Your task to perform on an android device: Search for vegetarian restaurants on Maps Image 0: 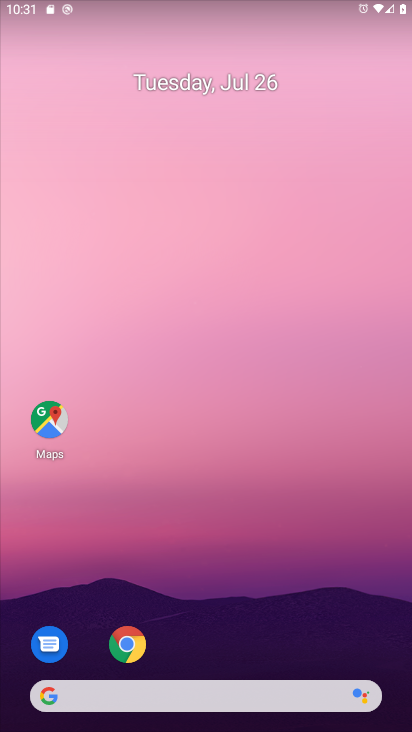
Step 0: click (54, 407)
Your task to perform on an android device: Search for vegetarian restaurants on Maps Image 1: 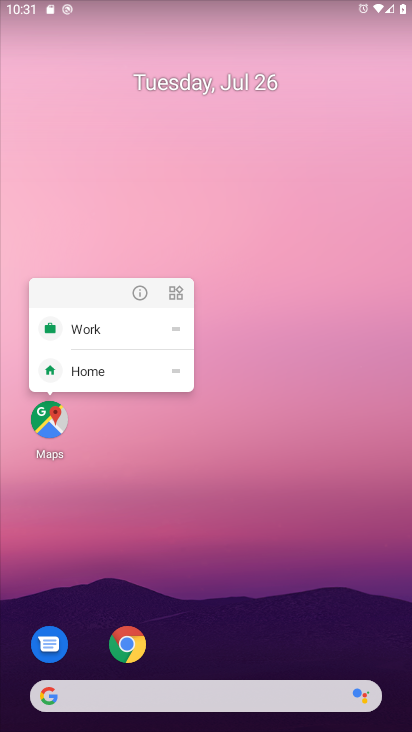
Step 1: click (54, 408)
Your task to perform on an android device: Search for vegetarian restaurants on Maps Image 2: 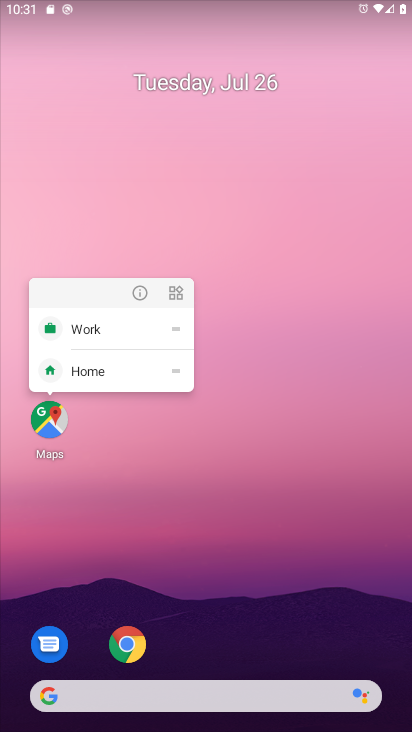
Step 2: click (52, 430)
Your task to perform on an android device: Search for vegetarian restaurants on Maps Image 3: 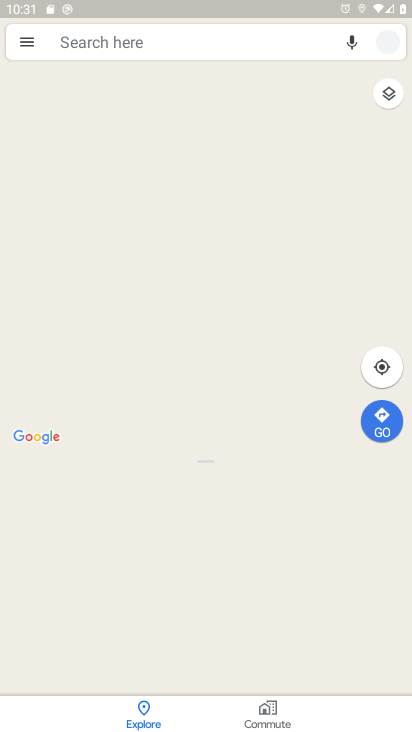
Step 3: click (160, 30)
Your task to perform on an android device: Search for vegetarian restaurants on Maps Image 4: 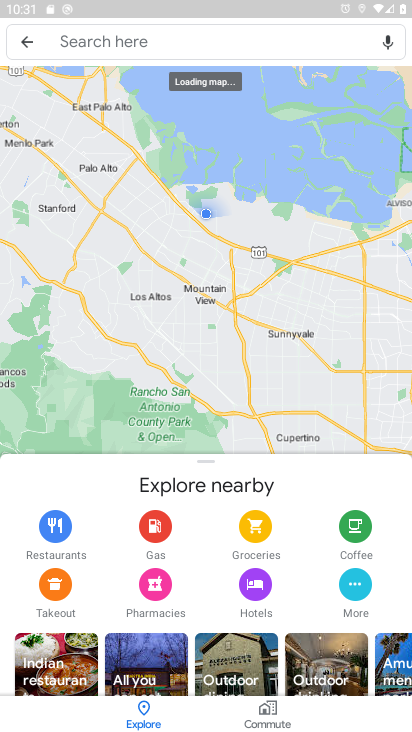
Step 4: click (164, 41)
Your task to perform on an android device: Search for vegetarian restaurants on Maps Image 5: 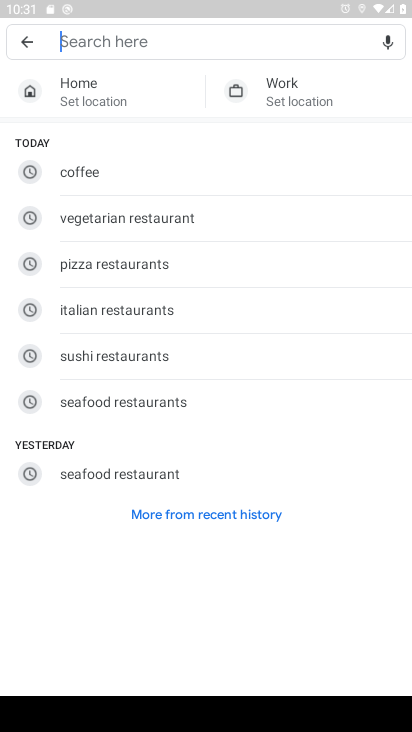
Step 5: type "vegetarian restaurants"
Your task to perform on an android device: Search for vegetarian restaurants on Maps Image 6: 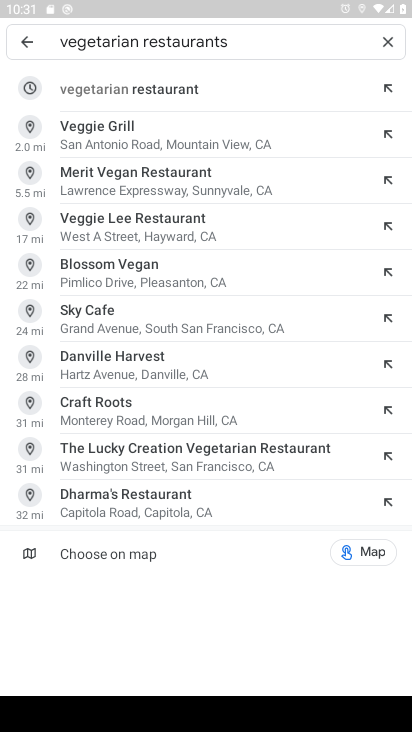
Step 6: click (176, 94)
Your task to perform on an android device: Search for vegetarian restaurants on Maps Image 7: 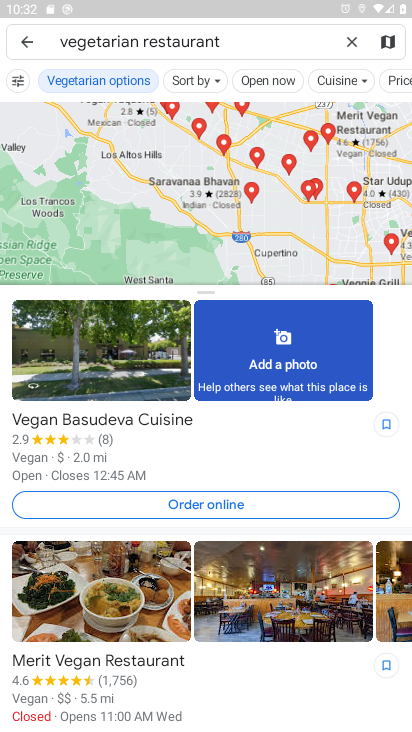
Step 7: task complete